Your task to perform on an android device: Search for seafood restaurants on Google Maps Image 0: 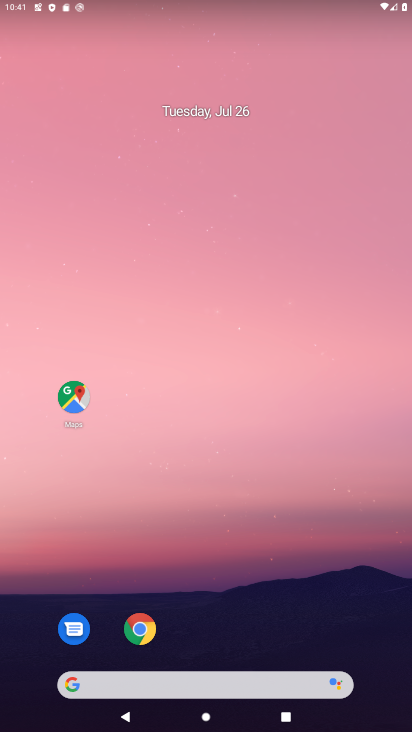
Step 0: drag from (300, 372) to (310, 120)
Your task to perform on an android device: Search for seafood restaurants on Google Maps Image 1: 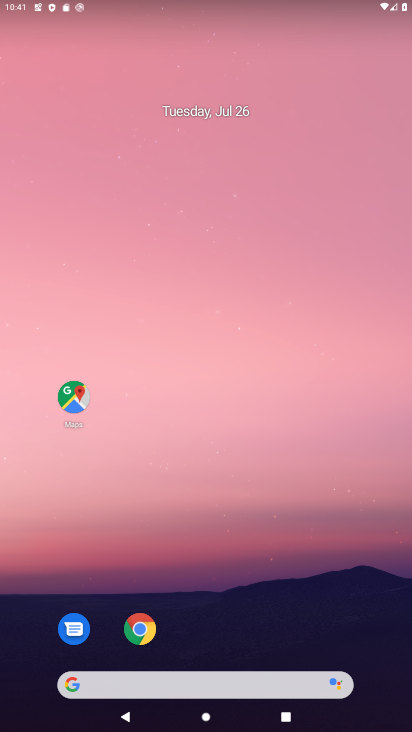
Step 1: click (81, 383)
Your task to perform on an android device: Search for seafood restaurants on Google Maps Image 2: 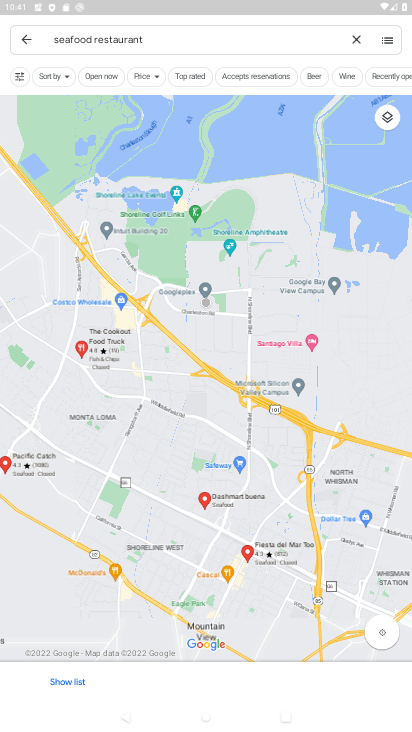
Step 2: task complete